Your task to perform on an android device: Go to battery settings Image 0: 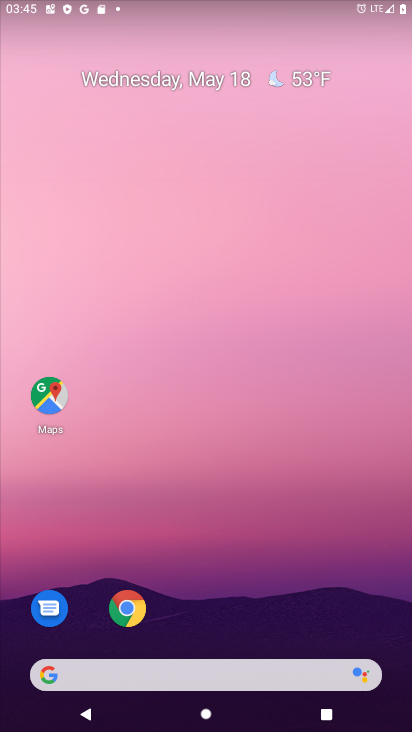
Step 0: drag from (302, 653) to (288, 53)
Your task to perform on an android device: Go to battery settings Image 1: 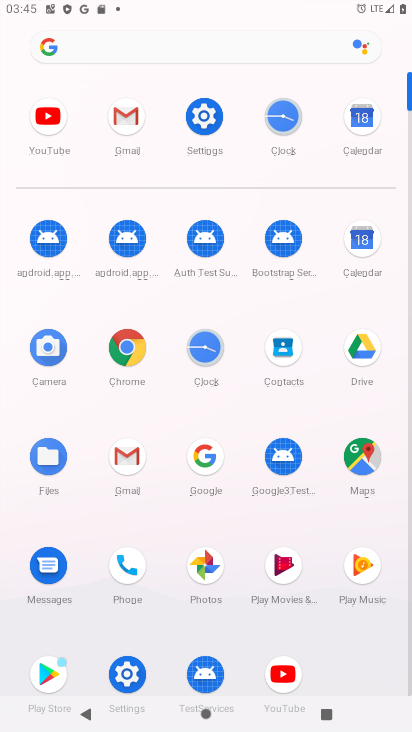
Step 1: click (201, 131)
Your task to perform on an android device: Go to battery settings Image 2: 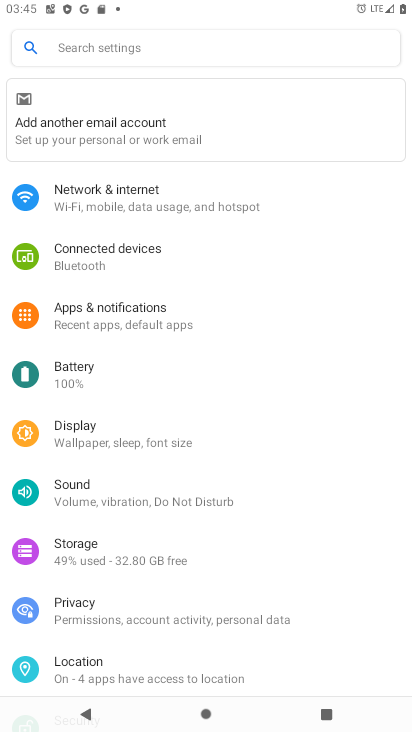
Step 2: click (73, 381)
Your task to perform on an android device: Go to battery settings Image 3: 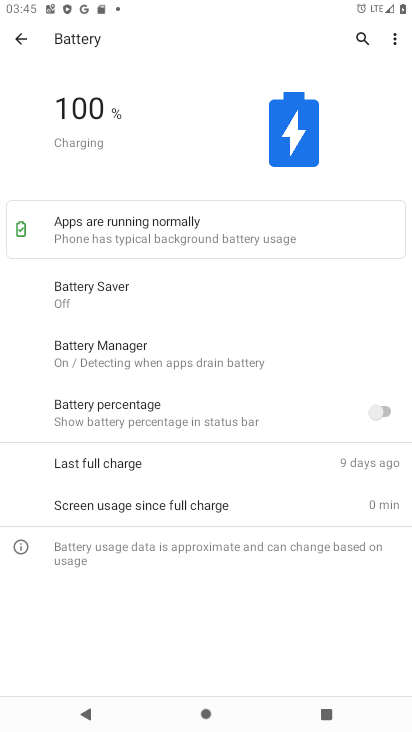
Step 3: task complete